Your task to perform on an android device: Open Youtube and go to "Your channel" Image 0: 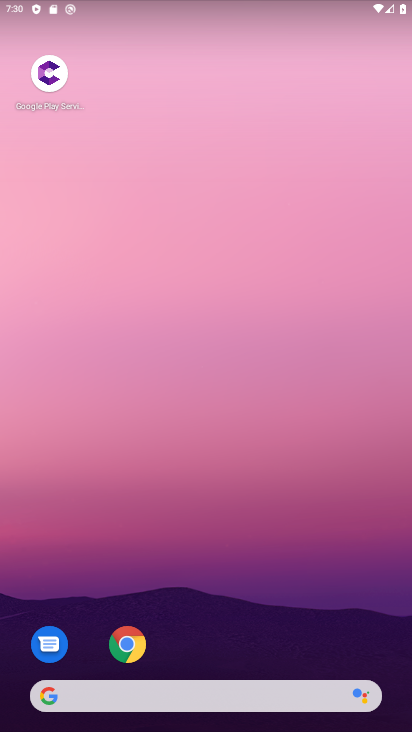
Step 0: drag from (176, 616) to (186, 298)
Your task to perform on an android device: Open Youtube and go to "Your channel" Image 1: 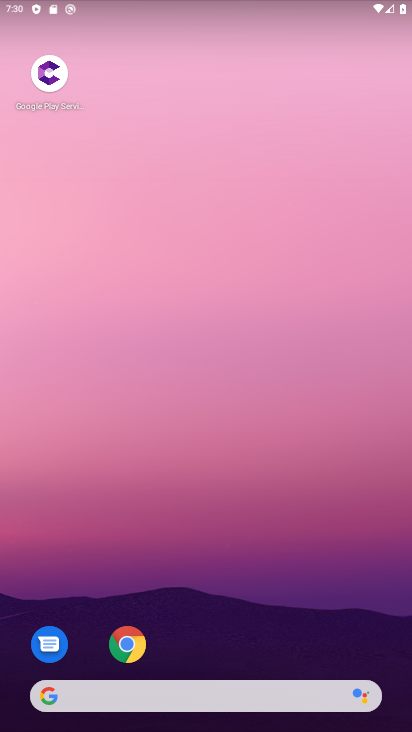
Step 1: drag from (202, 649) to (193, 306)
Your task to perform on an android device: Open Youtube and go to "Your channel" Image 2: 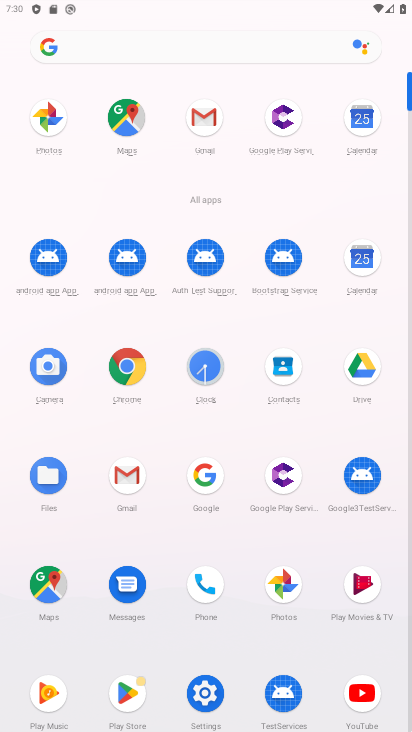
Step 2: click (358, 694)
Your task to perform on an android device: Open Youtube and go to "Your channel" Image 3: 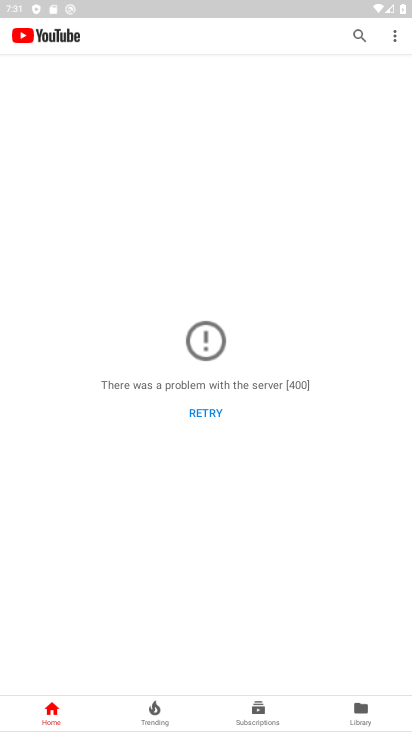
Step 3: click (365, 716)
Your task to perform on an android device: Open Youtube and go to "Your channel" Image 4: 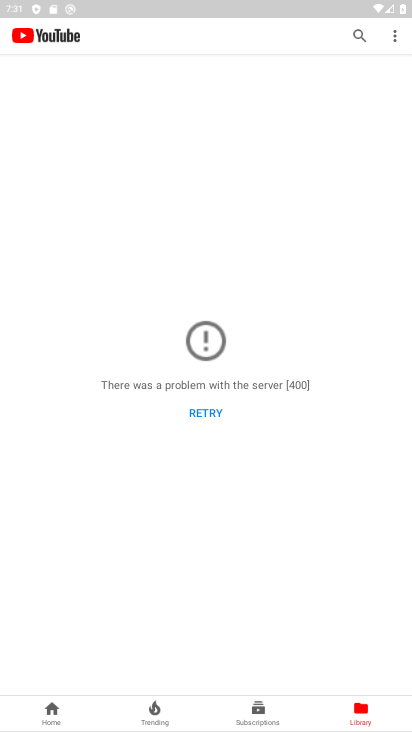
Step 4: task complete